Your task to perform on an android device: open the mobile data screen to see how much data has been used Image 0: 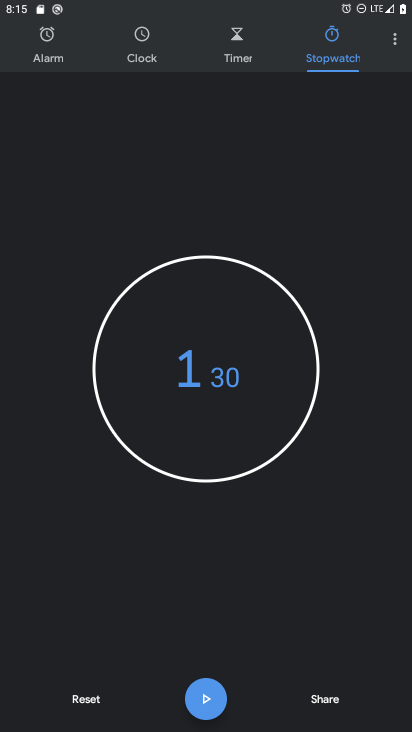
Step 0: press home button
Your task to perform on an android device: open the mobile data screen to see how much data has been used Image 1: 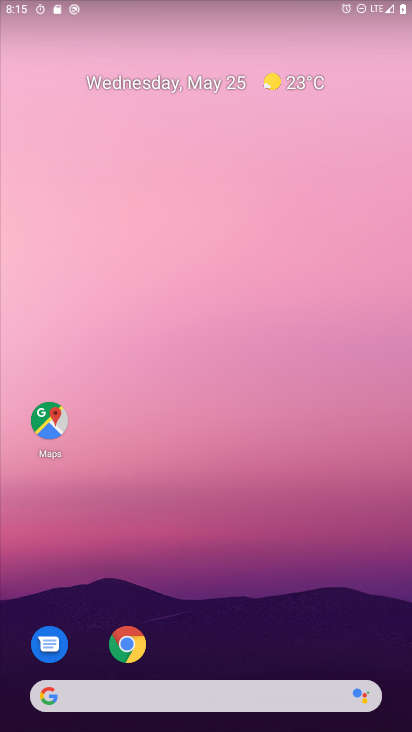
Step 1: drag from (368, 651) to (345, 149)
Your task to perform on an android device: open the mobile data screen to see how much data has been used Image 2: 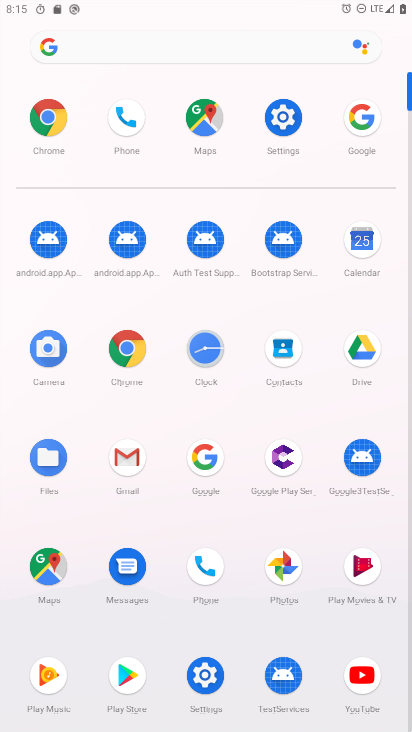
Step 2: click (297, 127)
Your task to perform on an android device: open the mobile data screen to see how much data has been used Image 3: 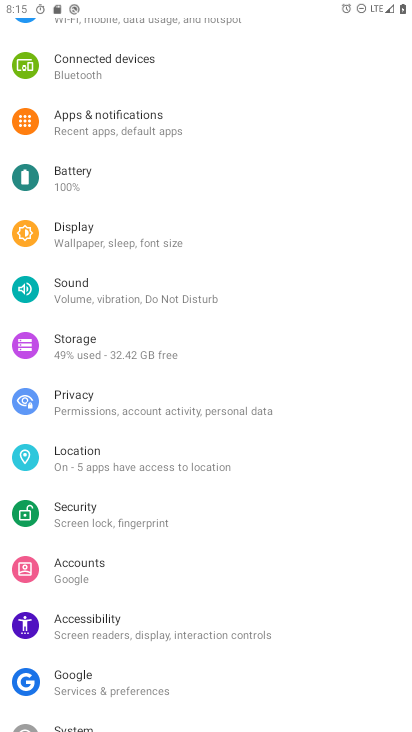
Step 3: drag from (174, 167) to (239, 656)
Your task to perform on an android device: open the mobile data screen to see how much data has been used Image 4: 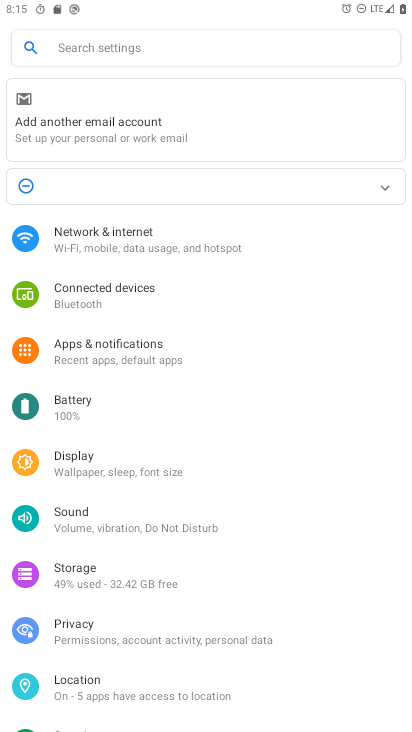
Step 4: click (182, 235)
Your task to perform on an android device: open the mobile data screen to see how much data has been used Image 5: 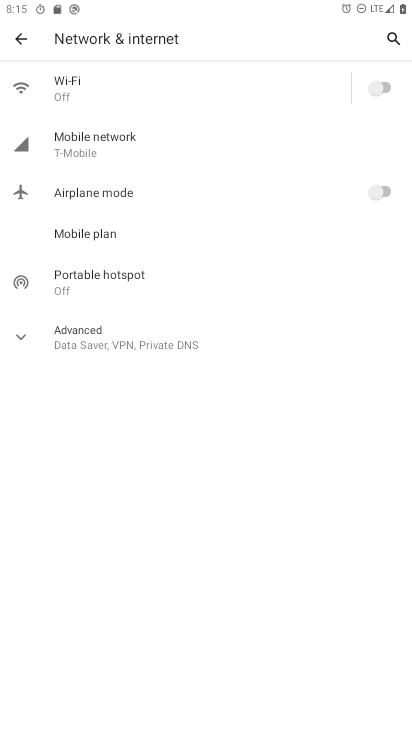
Step 5: click (132, 155)
Your task to perform on an android device: open the mobile data screen to see how much data has been used Image 6: 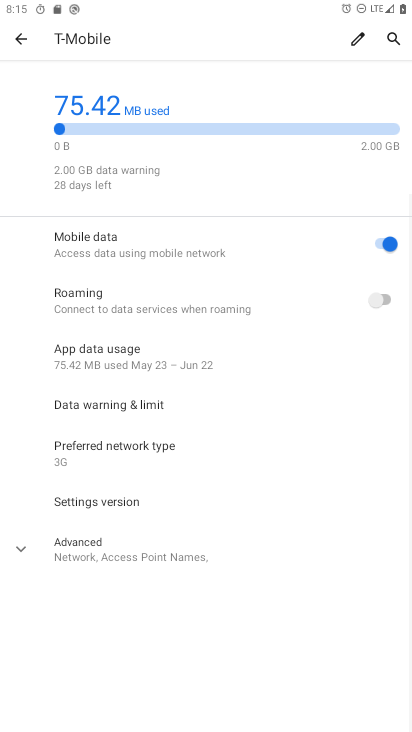
Step 6: click (180, 365)
Your task to perform on an android device: open the mobile data screen to see how much data has been used Image 7: 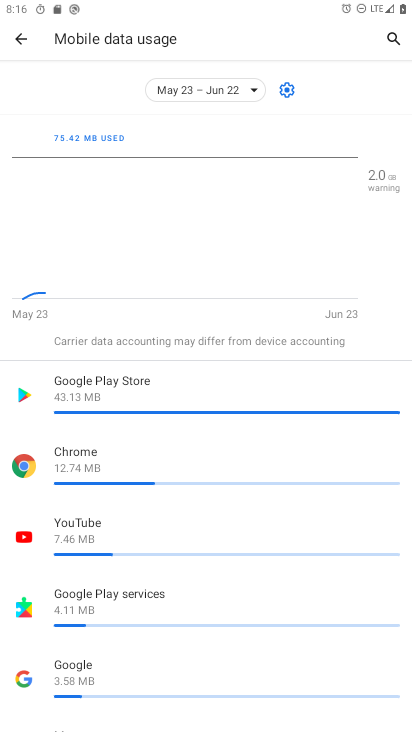
Step 7: task complete